Your task to perform on an android device: clear history in the chrome app Image 0: 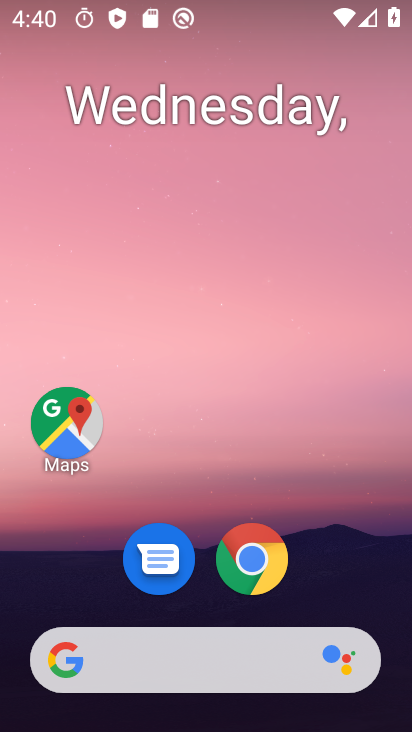
Step 0: click (269, 562)
Your task to perform on an android device: clear history in the chrome app Image 1: 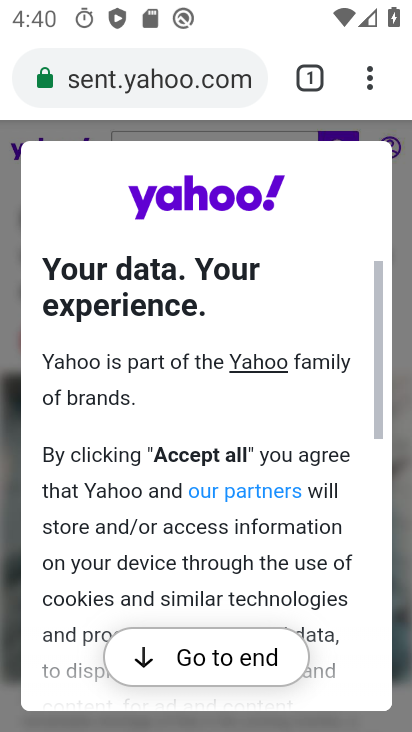
Step 1: click (363, 81)
Your task to perform on an android device: clear history in the chrome app Image 2: 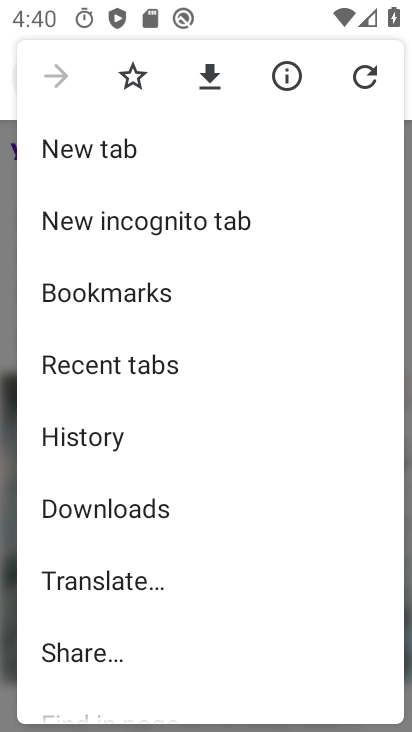
Step 2: click (205, 442)
Your task to perform on an android device: clear history in the chrome app Image 3: 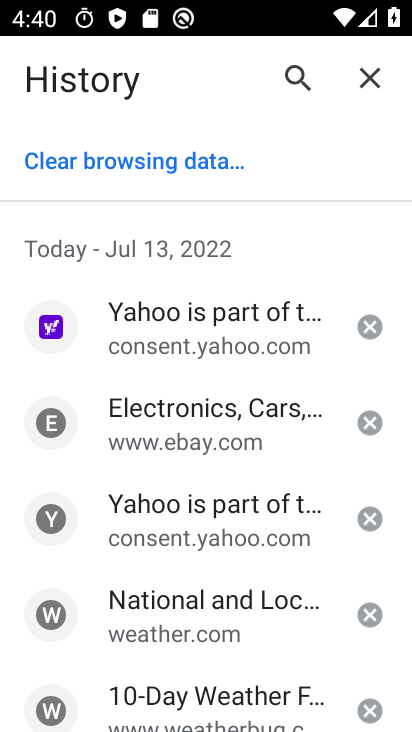
Step 3: click (123, 161)
Your task to perform on an android device: clear history in the chrome app Image 4: 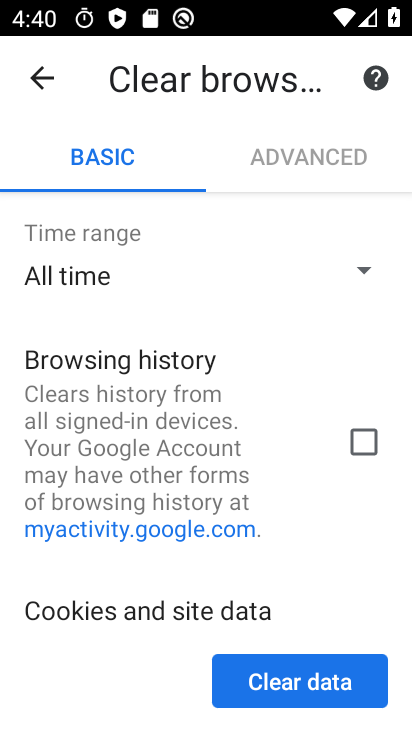
Step 4: click (361, 453)
Your task to perform on an android device: clear history in the chrome app Image 5: 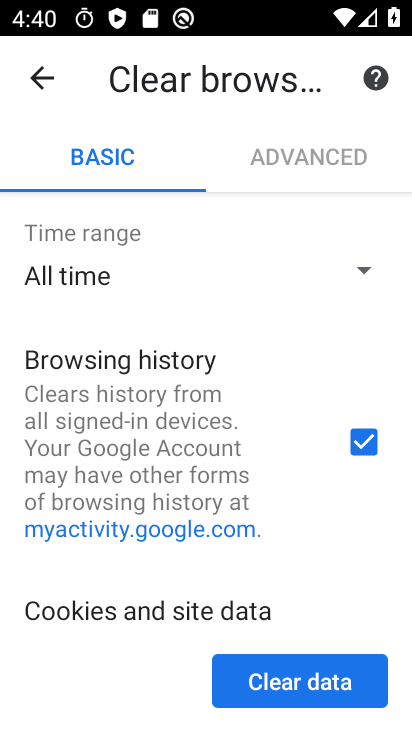
Step 5: click (344, 693)
Your task to perform on an android device: clear history in the chrome app Image 6: 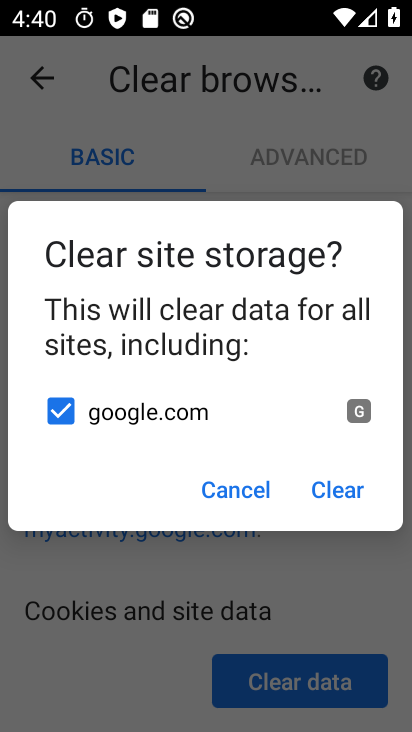
Step 6: click (334, 488)
Your task to perform on an android device: clear history in the chrome app Image 7: 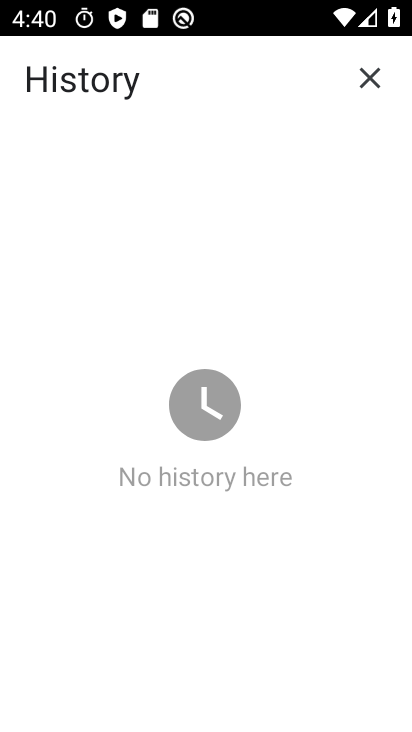
Step 7: task complete